Your task to perform on an android device: toggle notification dots Image 0: 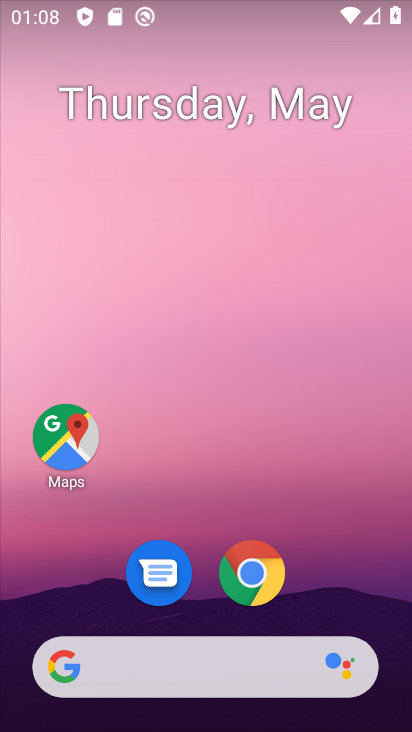
Step 0: drag from (351, 581) to (321, 200)
Your task to perform on an android device: toggle notification dots Image 1: 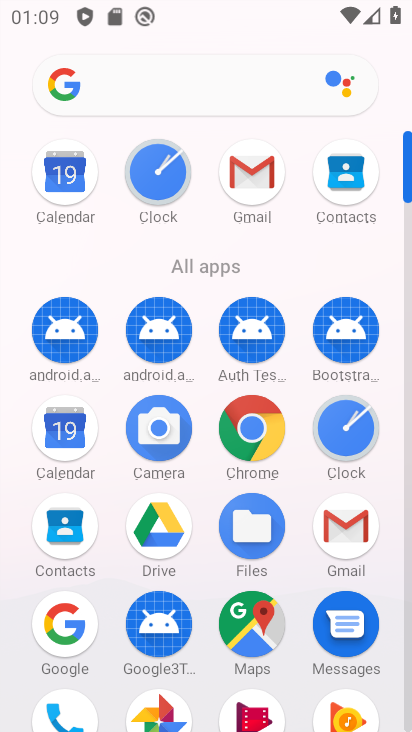
Step 1: click (406, 297)
Your task to perform on an android device: toggle notification dots Image 2: 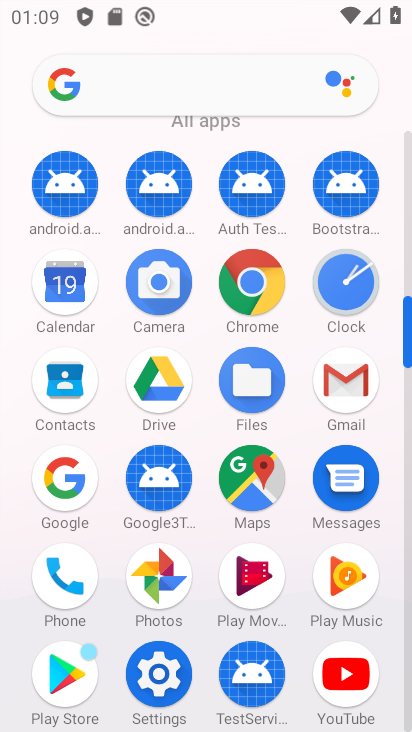
Step 2: click (168, 666)
Your task to perform on an android device: toggle notification dots Image 3: 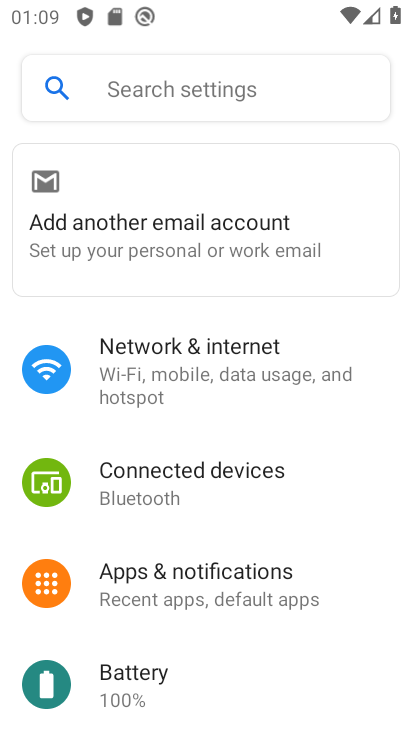
Step 3: drag from (141, 616) to (155, 449)
Your task to perform on an android device: toggle notification dots Image 4: 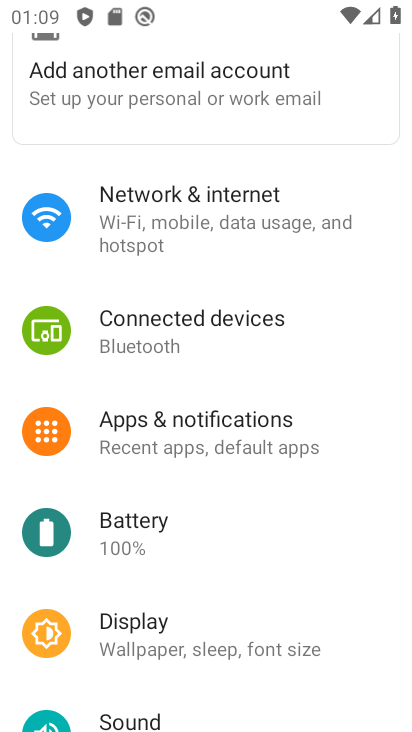
Step 4: click (157, 451)
Your task to perform on an android device: toggle notification dots Image 5: 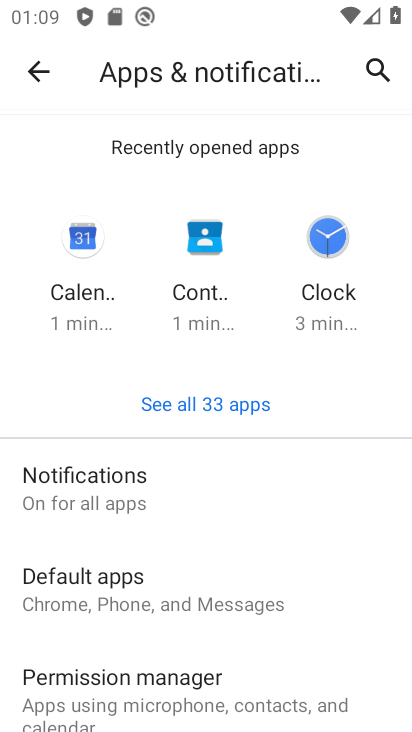
Step 5: drag from (114, 533) to (150, 357)
Your task to perform on an android device: toggle notification dots Image 6: 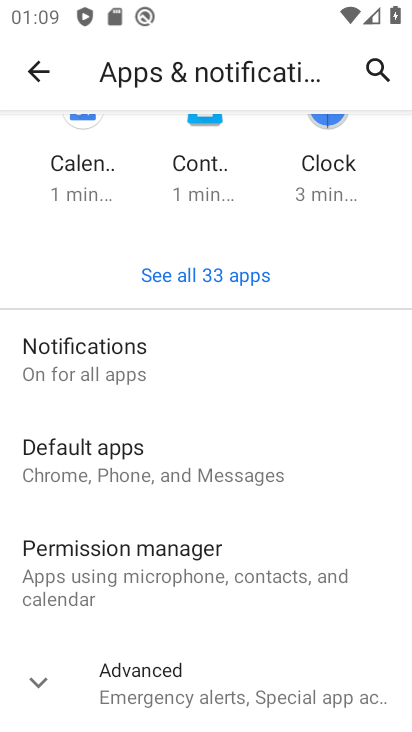
Step 6: click (182, 661)
Your task to perform on an android device: toggle notification dots Image 7: 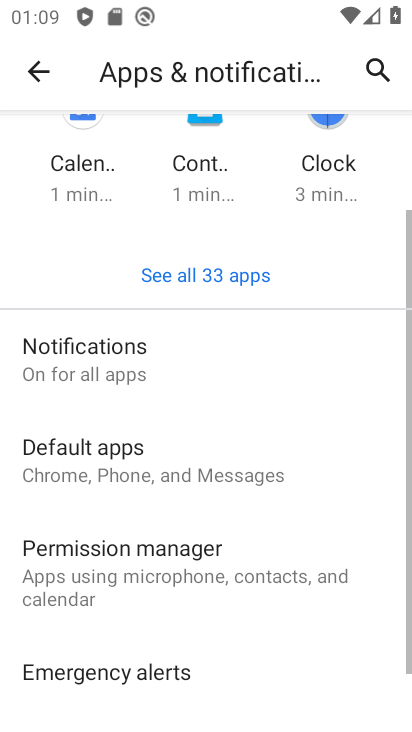
Step 7: drag from (182, 661) to (193, 458)
Your task to perform on an android device: toggle notification dots Image 8: 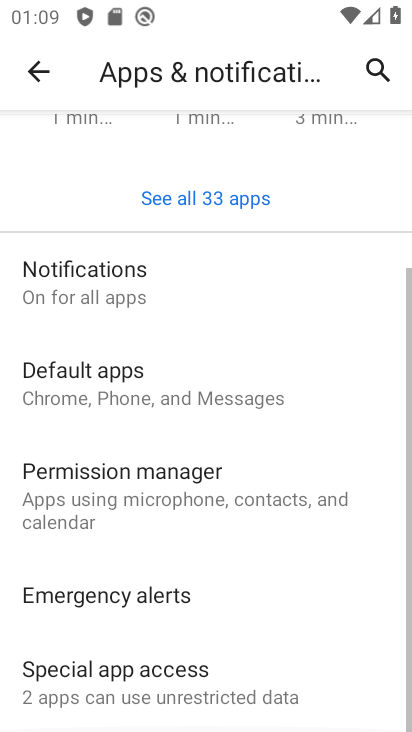
Step 8: click (156, 261)
Your task to perform on an android device: toggle notification dots Image 9: 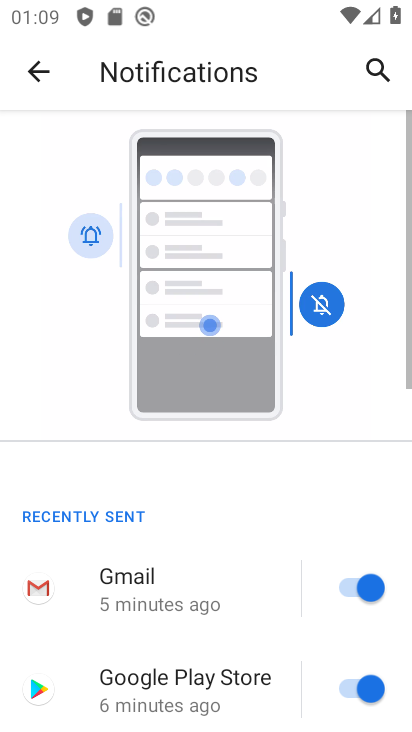
Step 9: drag from (156, 527) to (178, 289)
Your task to perform on an android device: toggle notification dots Image 10: 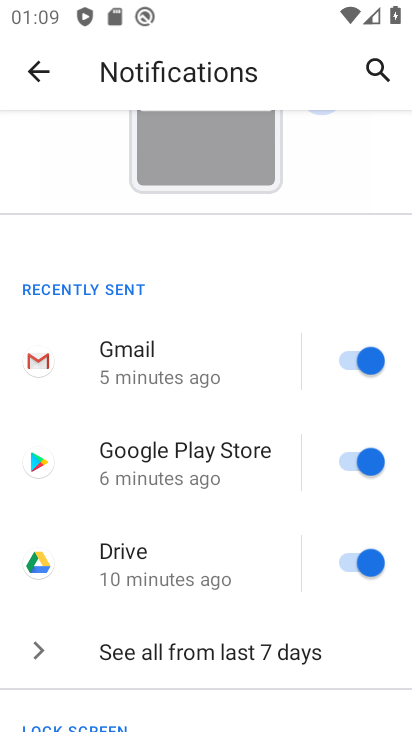
Step 10: drag from (175, 644) to (190, 379)
Your task to perform on an android device: toggle notification dots Image 11: 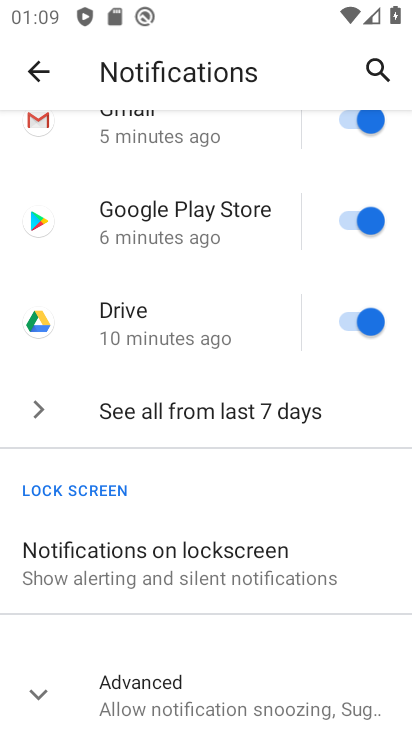
Step 11: click (183, 643)
Your task to perform on an android device: toggle notification dots Image 12: 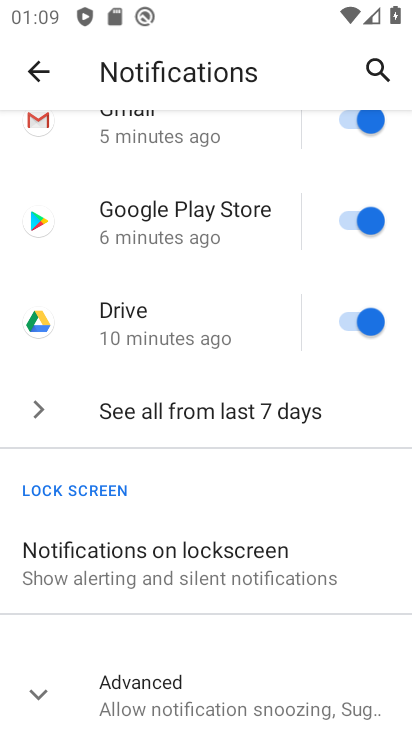
Step 12: drag from (183, 643) to (247, 205)
Your task to perform on an android device: toggle notification dots Image 13: 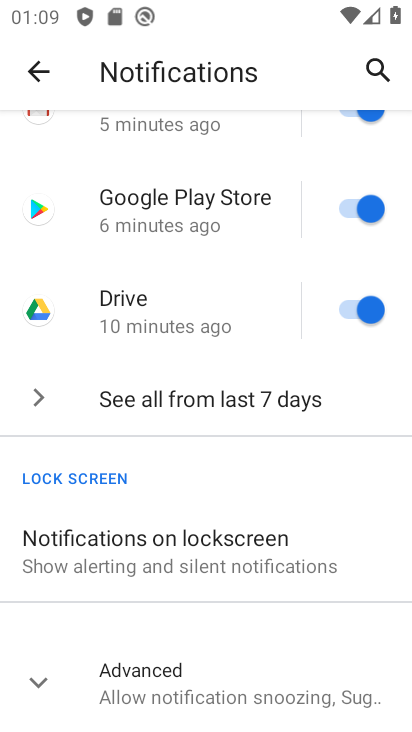
Step 13: click (218, 684)
Your task to perform on an android device: toggle notification dots Image 14: 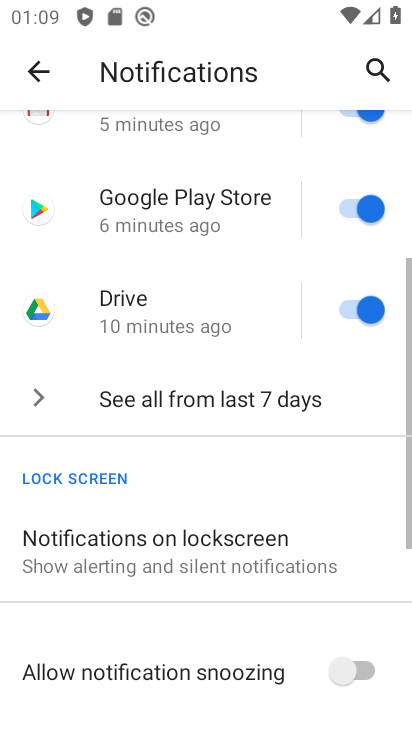
Step 14: drag from (238, 632) to (263, 281)
Your task to perform on an android device: toggle notification dots Image 15: 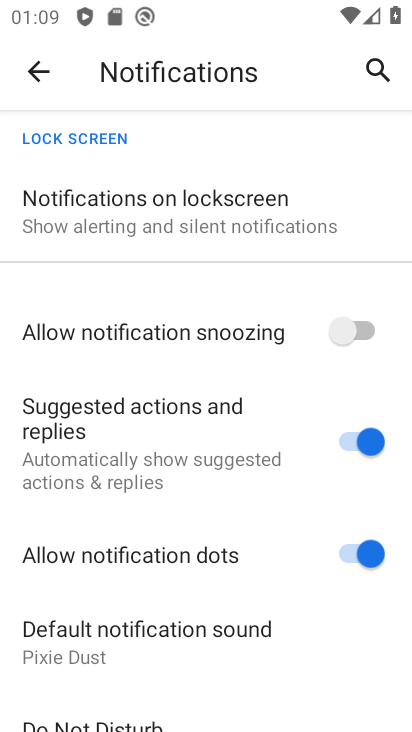
Step 15: click (336, 557)
Your task to perform on an android device: toggle notification dots Image 16: 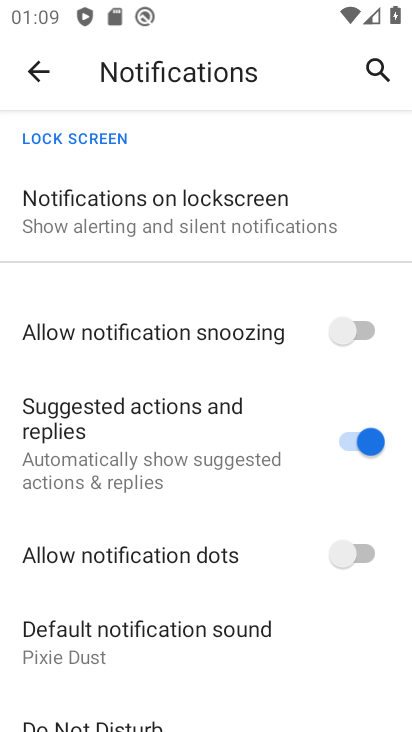
Step 16: task complete